Your task to perform on an android device: Is it going to rain tomorrow? Image 0: 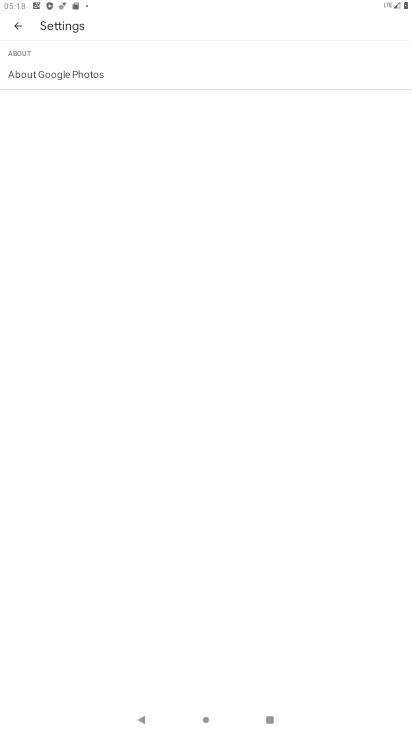
Step 0: press home button
Your task to perform on an android device: Is it going to rain tomorrow? Image 1: 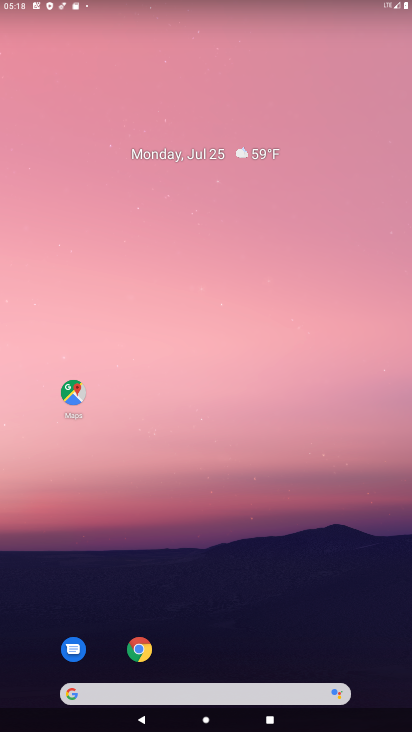
Step 1: drag from (249, 698) to (411, 21)
Your task to perform on an android device: Is it going to rain tomorrow? Image 2: 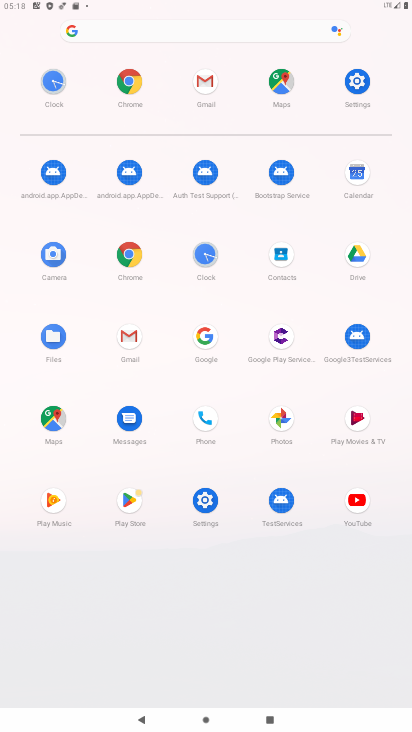
Step 2: drag from (353, 581) to (14, 8)
Your task to perform on an android device: Is it going to rain tomorrow? Image 3: 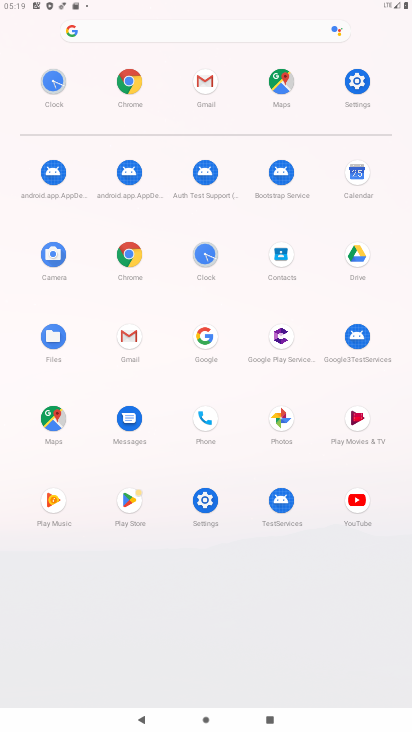
Step 3: click (191, 315)
Your task to perform on an android device: Is it going to rain tomorrow? Image 4: 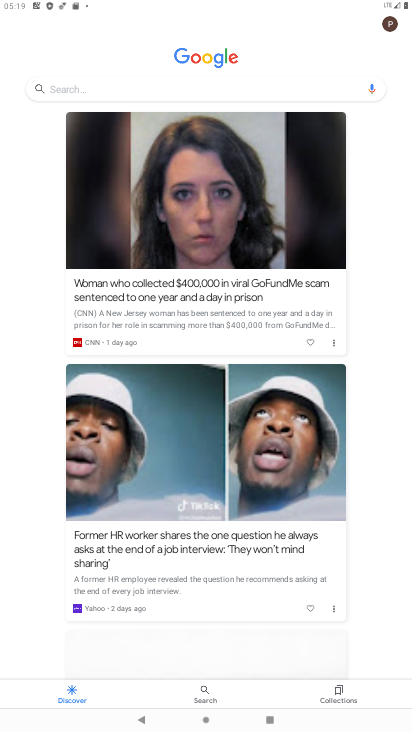
Step 4: click (74, 108)
Your task to perform on an android device: Is it going to rain tomorrow? Image 5: 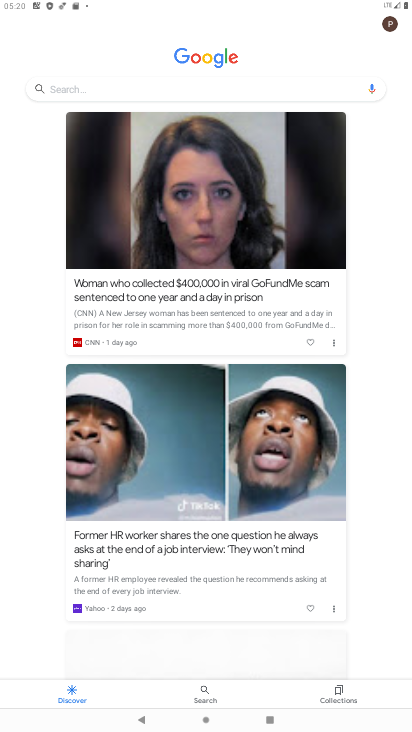
Step 5: click (63, 84)
Your task to perform on an android device: Is it going to rain tomorrow? Image 6: 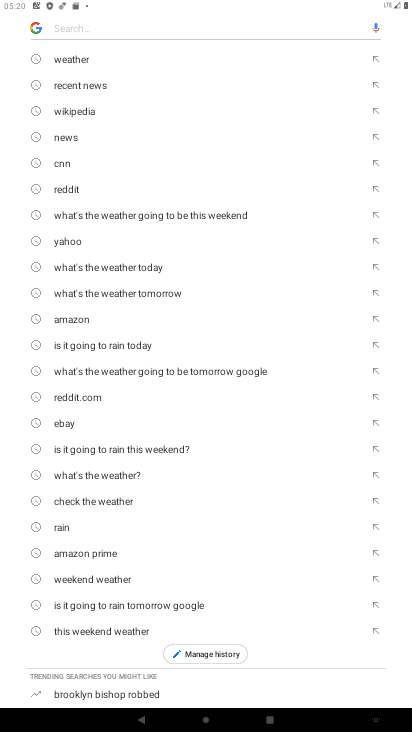
Step 6: click (74, 60)
Your task to perform on an android device: Is it going to rain tomorrow? Image 7: 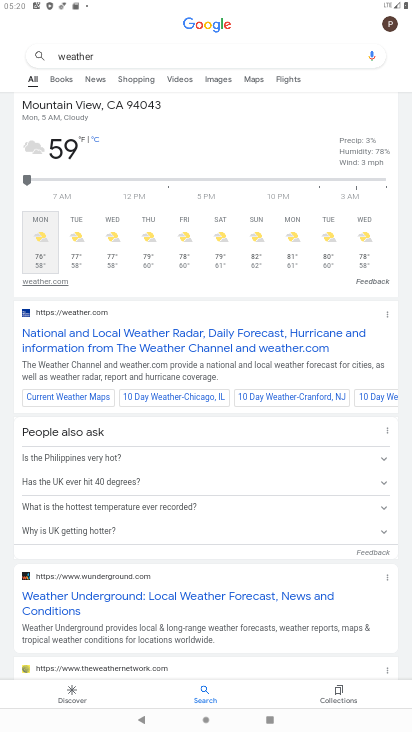
Step 7: task complete